Your task to perform on an android device: find which apps use the phone's location Image 0: 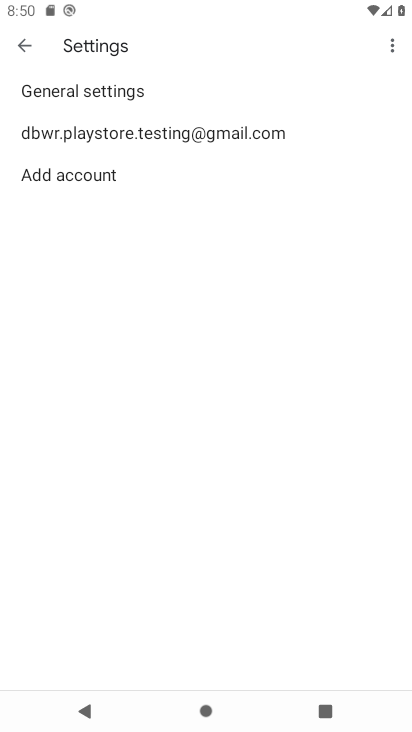
Step 0: press home button
Your task to perform on an android device: find which apps use the phone's location Image 1: 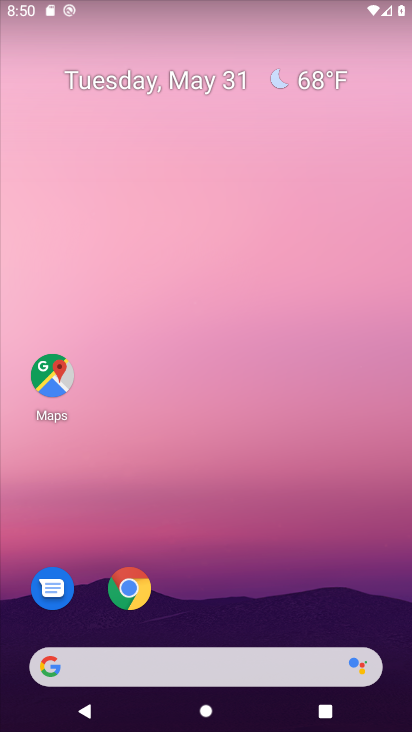
Step 1: drag from (245, 658) to (376, 103)
Your task to perform on an android device: find which apps use the phone's location Image 2: 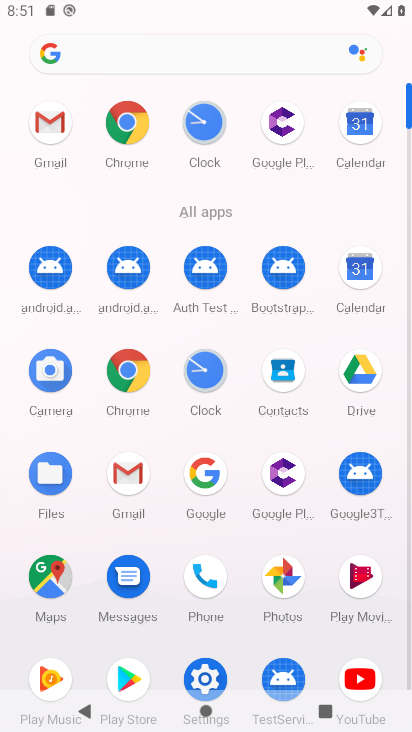
Step 2: click (209, 666)
Your task to perform on an android device: find which apps use the phone's location Image 3: 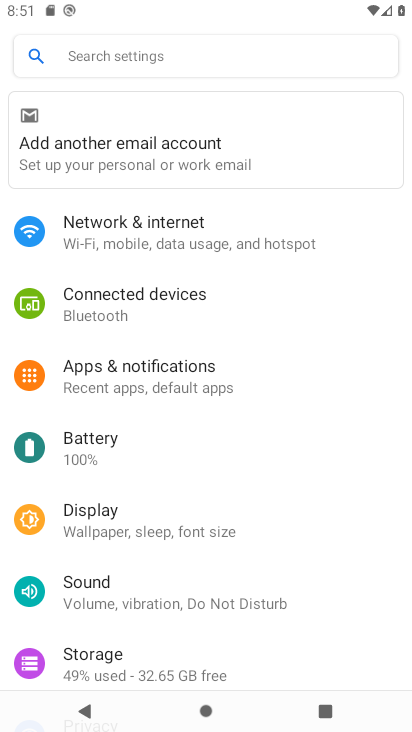
Step 3: drag from (150, 530) to (217, 244)
Your task to perform on an android device: find which apps use the phone's location Image 4: 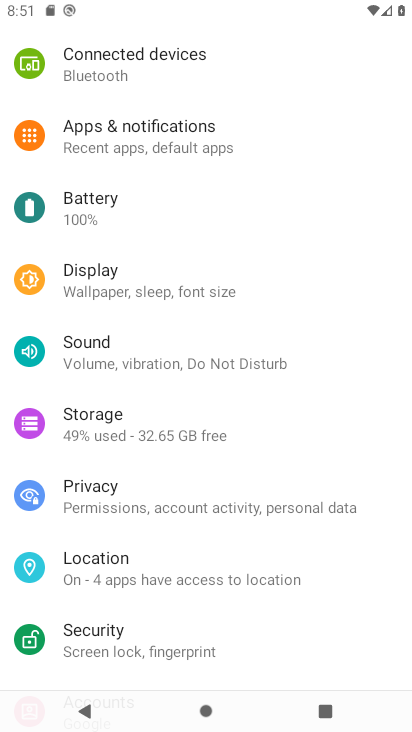
Step 4: click (97, 550)
Your task to perform on an android device: find which apps use the phone's location Image 5: 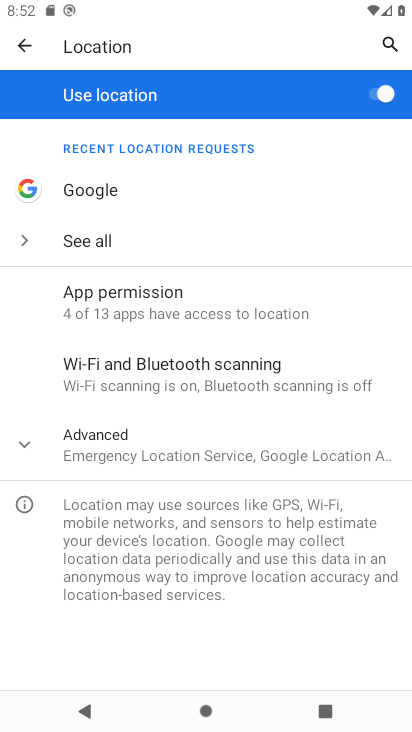
Step 5: click (132, 306)
Your task to perform on an android device: find which apps use the phone's location Image 6: 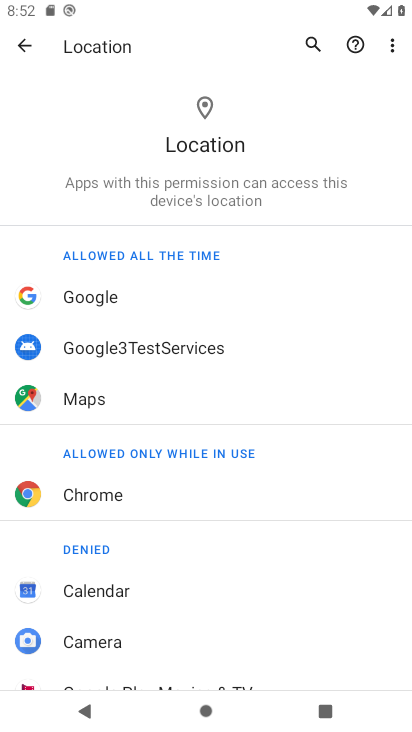
Step 6: drag from (194, 552) to (333, 179)
Your task to perform on an android device: find which apps use the phone's location Image 7: 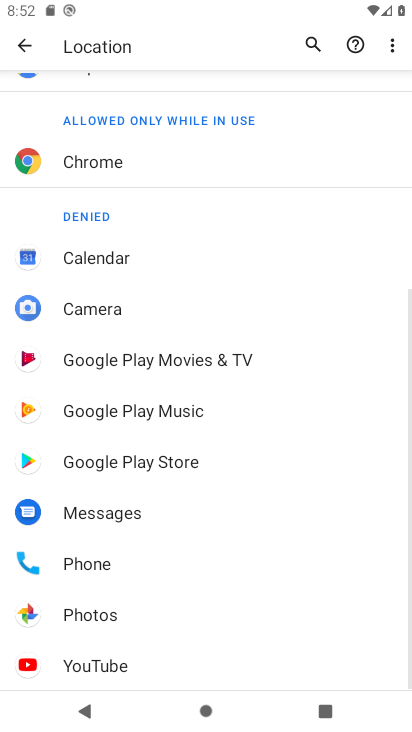
Step 7: click (102, 566)
Your task to perform on an android device: find which apps use the phone's location Image 8: 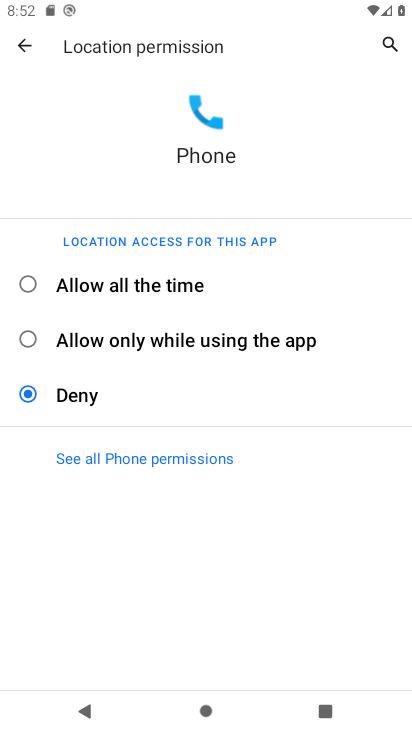
Step 8: task complete